Your task to perform on an android device: allow cookies in the chrome app Image 0: 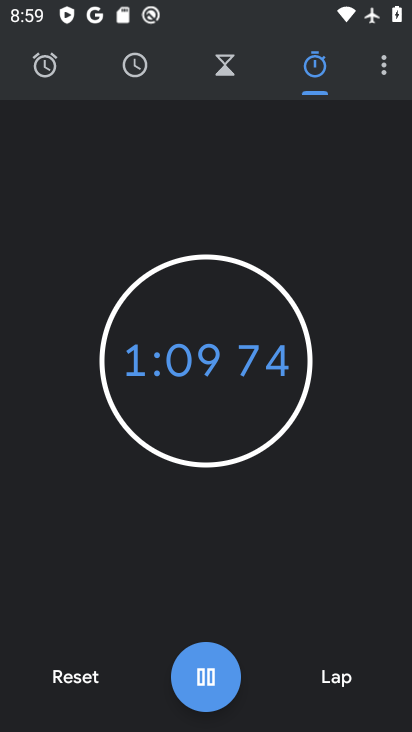
Step 0: press home button
Your task to perform on an android device: allow cookies in the chrome app Image 1: 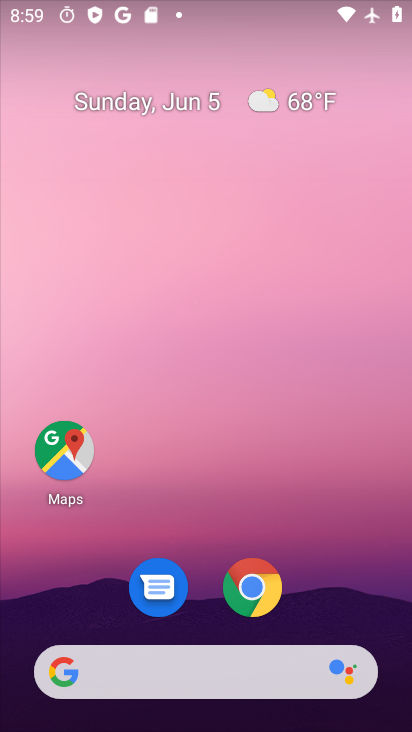
Step 1: click (252, 596)
Your task to perform on an android device: allow cookies in the chrome app Image 2: 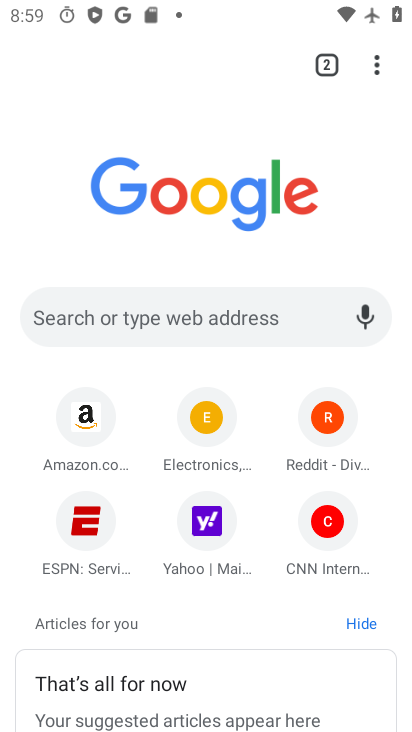
Step 2: click (377, 67)
Your task to perform on an android device: allow cookies in the chrome app Image 3: 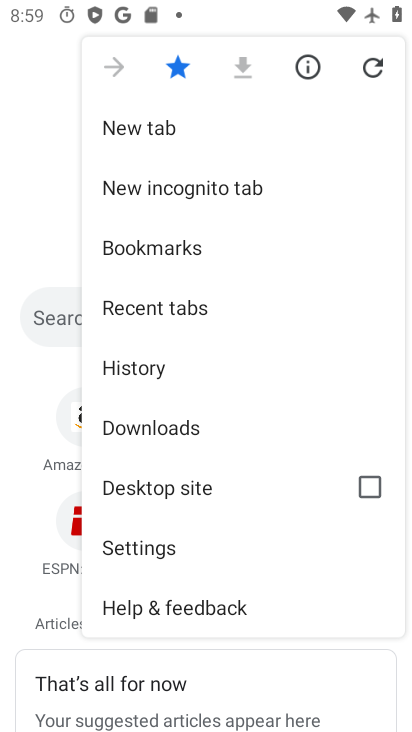
Step 3: click (182, 547)
Your task to perform on an android device: allow cookies in the chrome app Image 4: 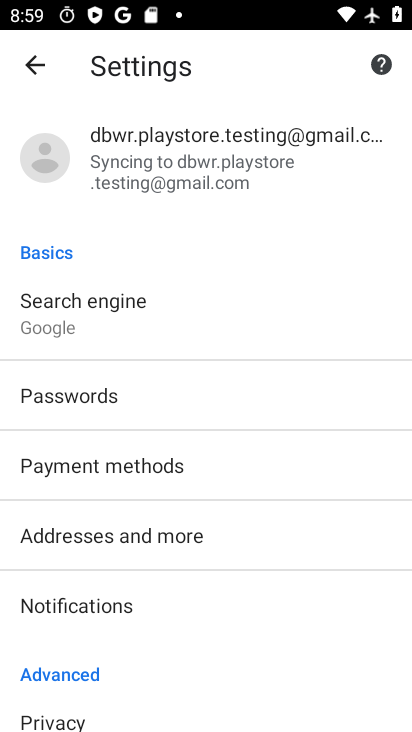
Step 4: drag from (133, 673) to (90, 230)
Your task to perform on an android device: allow cookies in the chrome app Image 5: 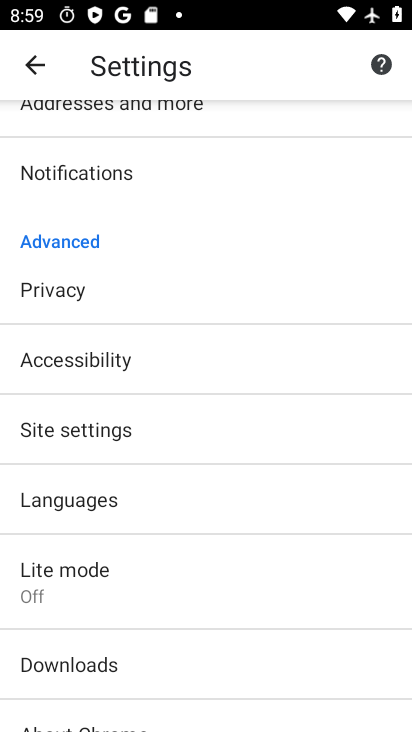
Step 5: drag from (119, 655) to (92, 206)
Your task to perform on an android device: allow cookies in the chrome app Image 6: 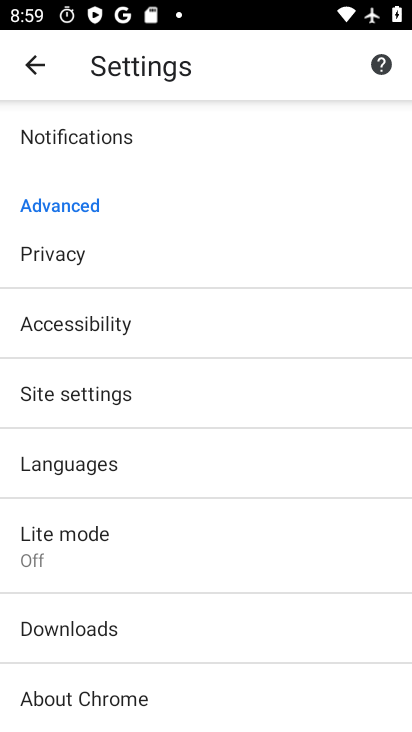
Step 6: click (89, 393)
Your task to perform on an android device: allow cookies in the chrome app Image 7: 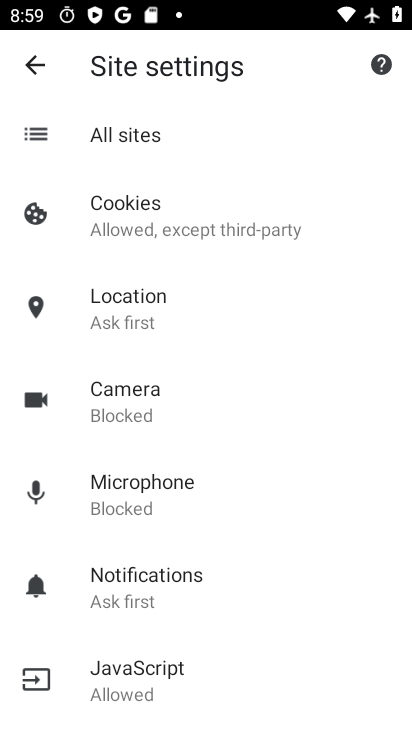
Step 7: click (172, 221)
Your task to perform on an android device: allow cookies in the chrome app Image 8: 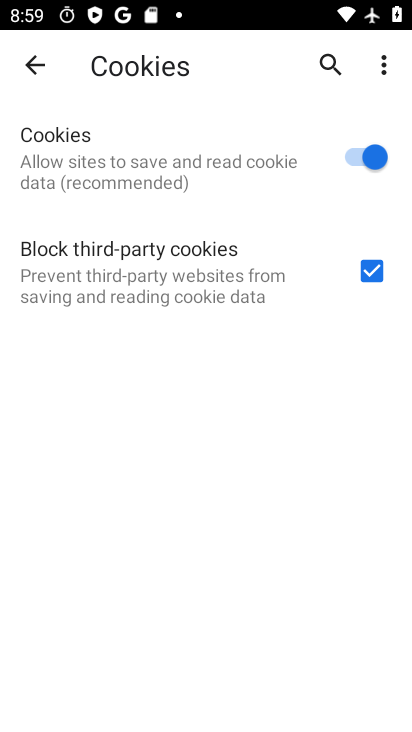
Step 8: task complete